Your task to perform on an android device: Open Google Chrome and open the bookmarks view Image 0: 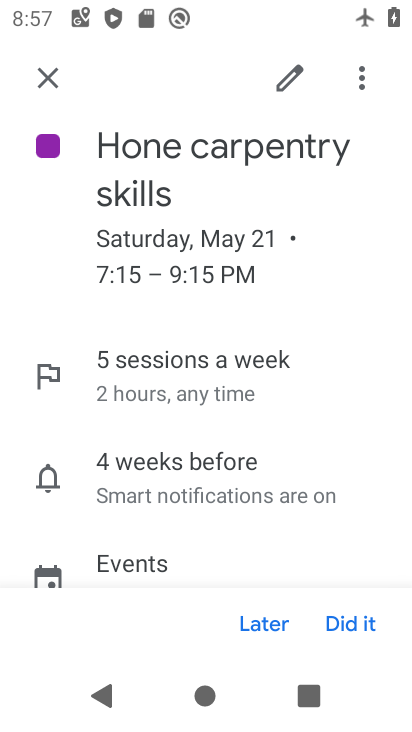
Step 0: press home button
Your task to perform on an android device: Open Google Chrome and open the bookmarks view Image 1: 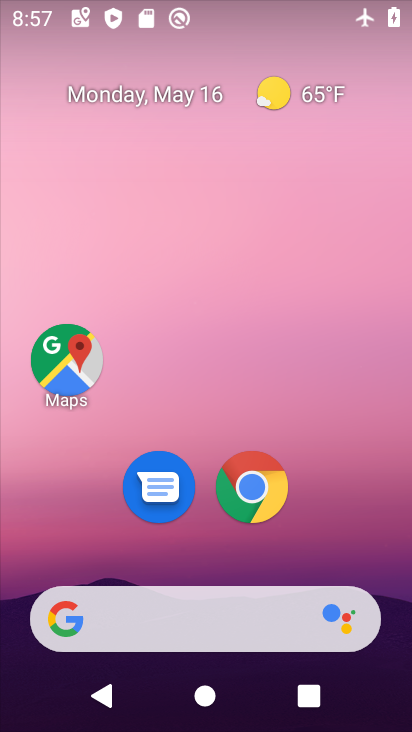
Step 1: drag from (332, 509) to (333, 150)
Your task to perform on an android device: Open Google Chrome and open the bookmarks view Image 2: 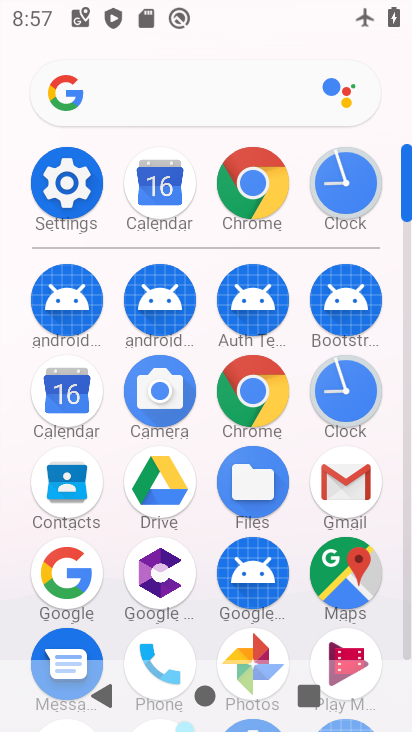
Step 2: click (234, 392)
Your task to perform on an android device: Open Google Chrome and open the bookmarks view Image 3: 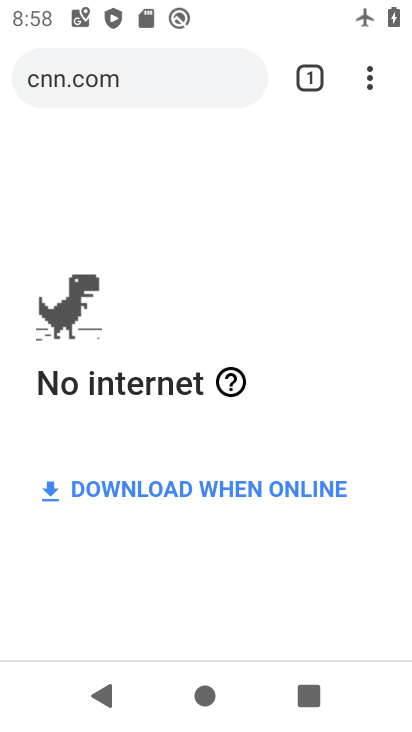
Step 3: task complete